Your task to perform on an android device: turn pop-ups off in chrome Image 0: 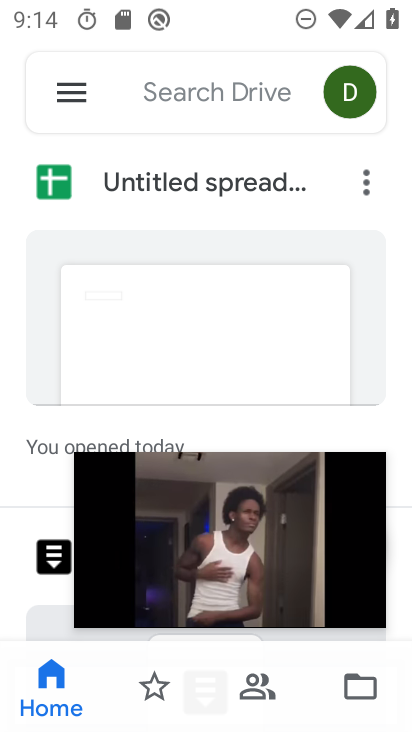
Step 0: press home button
Your task to perform on an android device: turn pop-ups off in chrome Image 1: 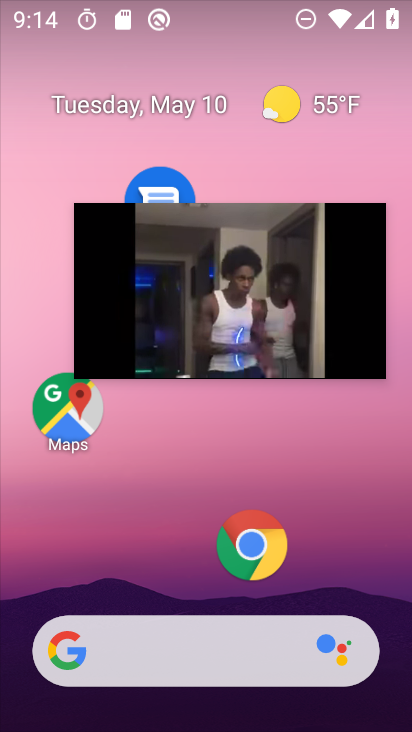
Step 1: click (357, 247)
Your task to perform on an android device: turn pop-ups off in chrome Image 2: 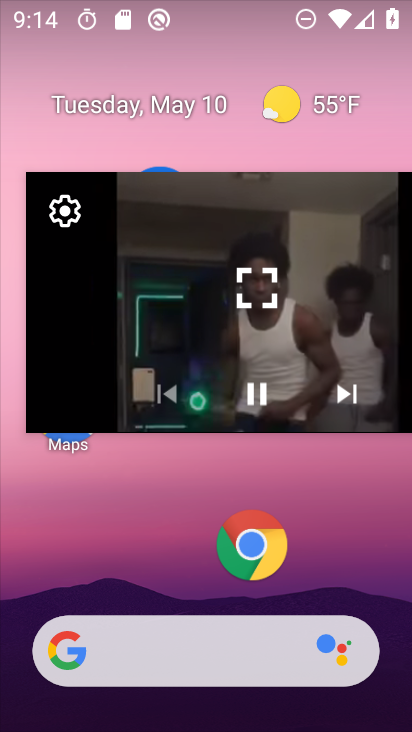
Step 2: click (242, 562)
Your task to perform on an android device: turn pop-ups off in chrome Image 3: 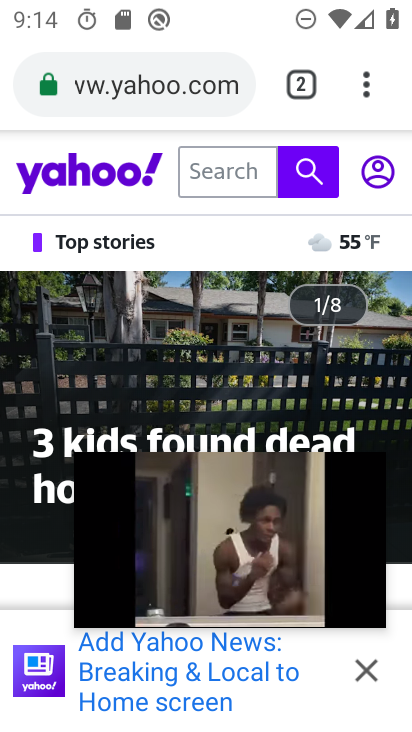
Step 3: drag from (368, 95) to (43, 586)
Your task to perform on an android device: turn pop-ups off in chrome Image 4: 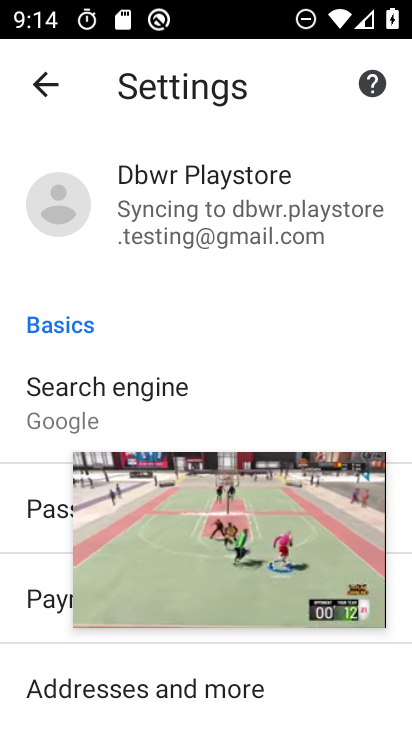
Step 4: drag from (22, 585) to (134, 203)
Your task to perform on an android device: turn pop-ups off in chrome Image 5: 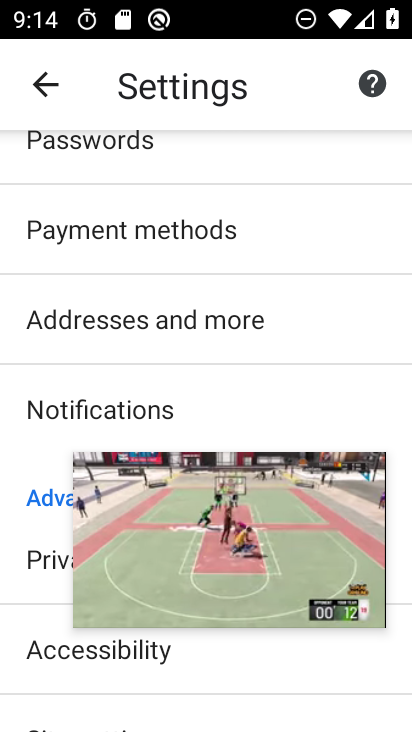
Step 5: drag from (213, 548) to (335, 124)
Your task to perform on an android device: turn pop-ups off in chrome Image 6: 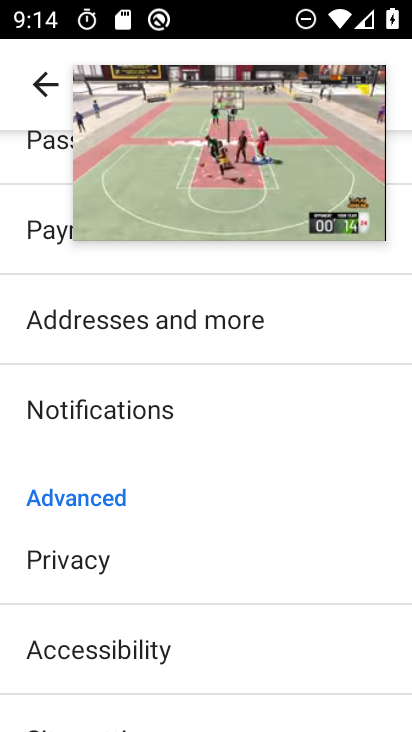
Step 6: drag from (178, 523) to (241, 305)
Your task to perform on an android device: turn pop-ups off in chrome Image 7: 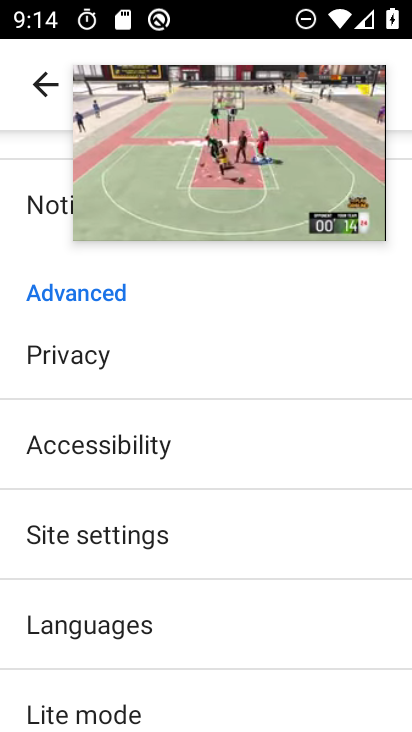
Step 7: click (175, 535)
Your task to perform on an android device: turn pop-ups off in chrome Image 8: 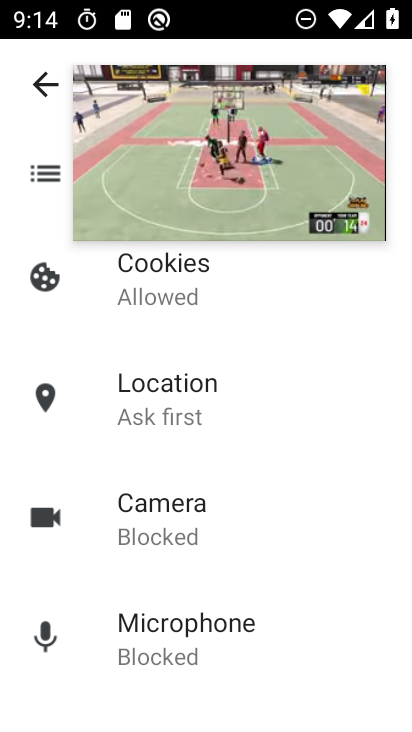
Step 8: drag from (241, 573) to (269, 300)
Your task to perform on an android device: turn pop-ups off in chrome Image 9: 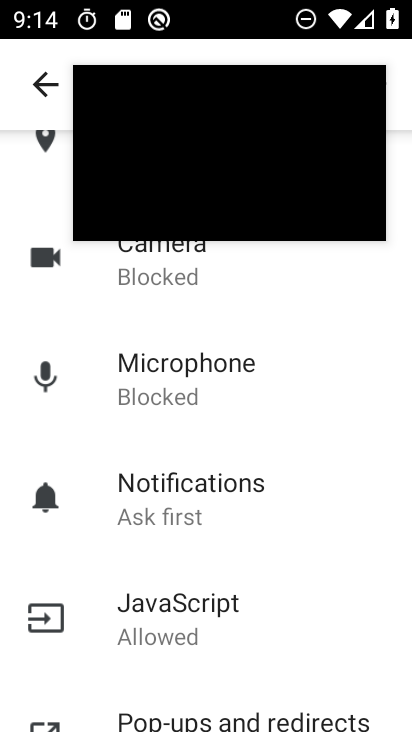
Step 9: drag from (214, 652) to (261, 413)
Your task to perform on an android device: turn pop-ups off in chrome Image 10: 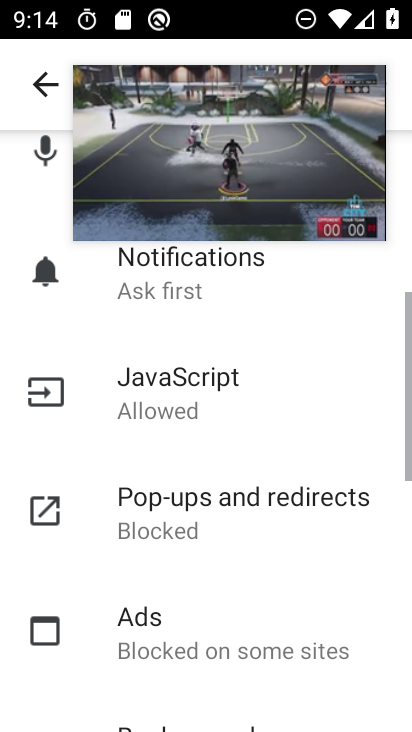
Step 10: click (237, 514)
Your task to perform on an android device: turn pop-ups off in chrome Image 11: 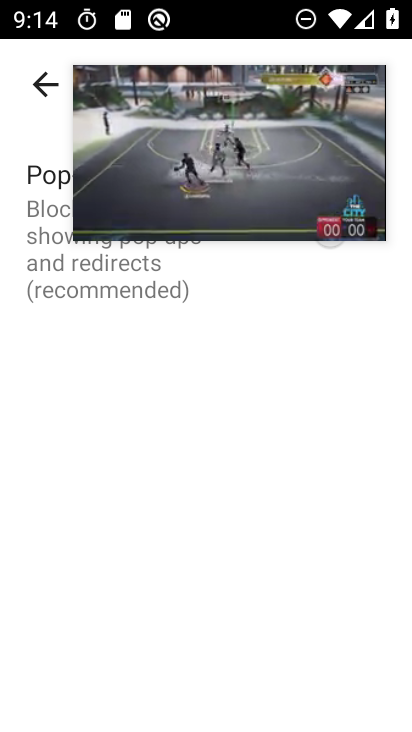
Step 11: task complete